Your task to perform on an android device: turn pop-ups off in chrome Image 0: 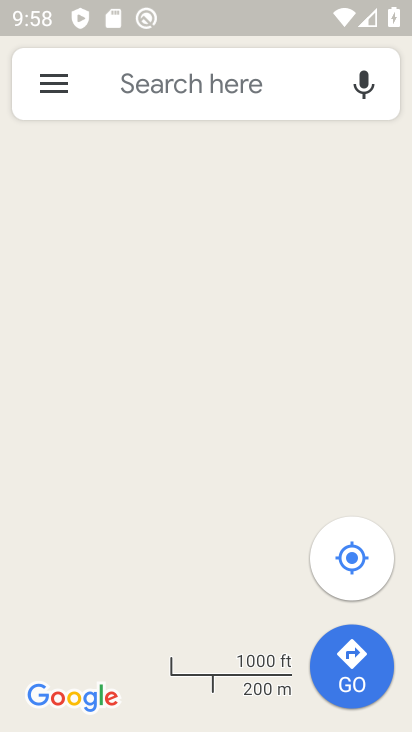
Step 0: press home button
Your task to perform on an android device: turn pop-ups off in chrome Image 1: 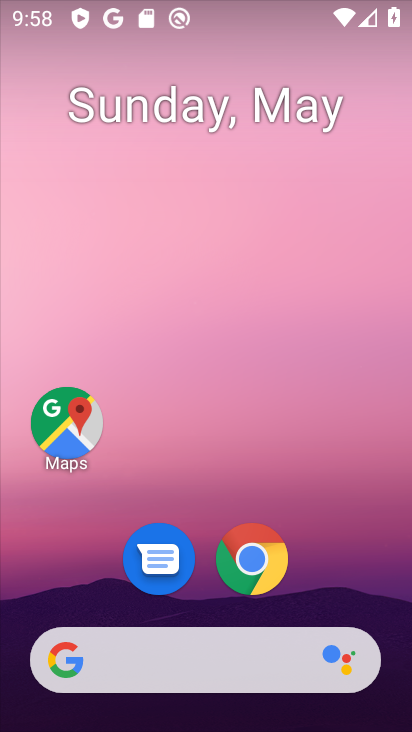
Step 1: click (270, 572)
Your task to perform on an android device: turn pop-ups off in chrome Image 2: 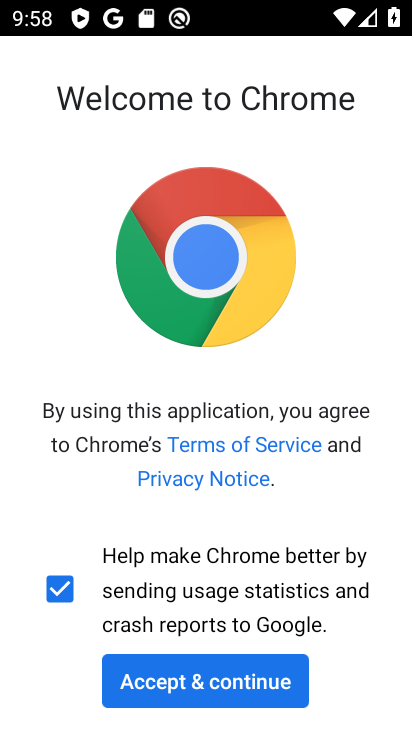
Step 2: click (182, 678)
Your task to perform on an android device: turn pop-ups off in chrome Image 3: 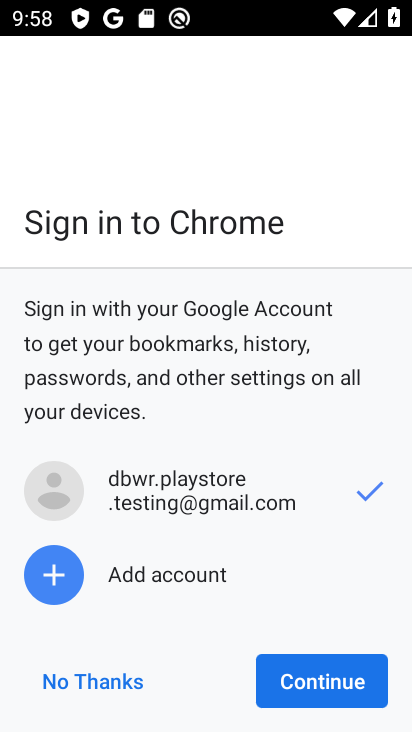
Step 3: click (338, 672)
Your task to perform on an android device: turn pop-ups off in chrome Image 4: 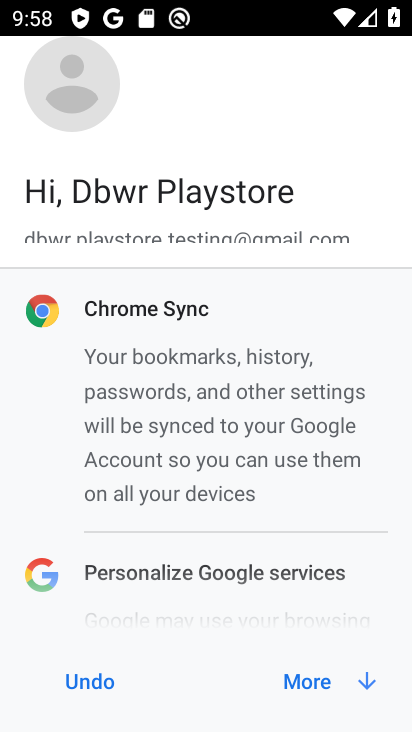
Step 4: click (363, 687)
Your task to perform on an android device: turn pop-ups off in chrome Image 5: 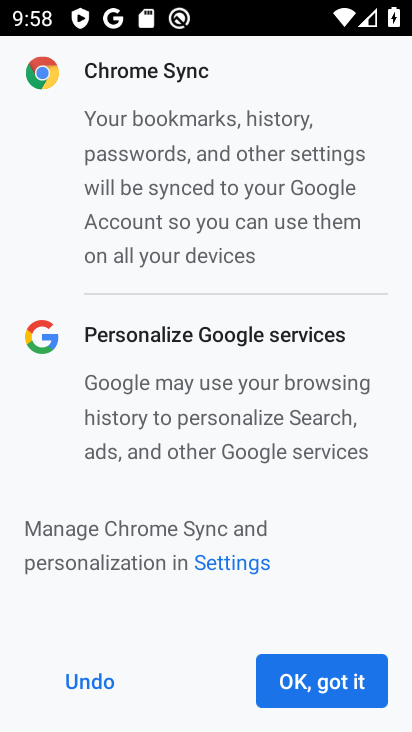
Step 5: click (356, 670)
Your task to perform on an android device: turn pop-ups off in chrome Image 6: 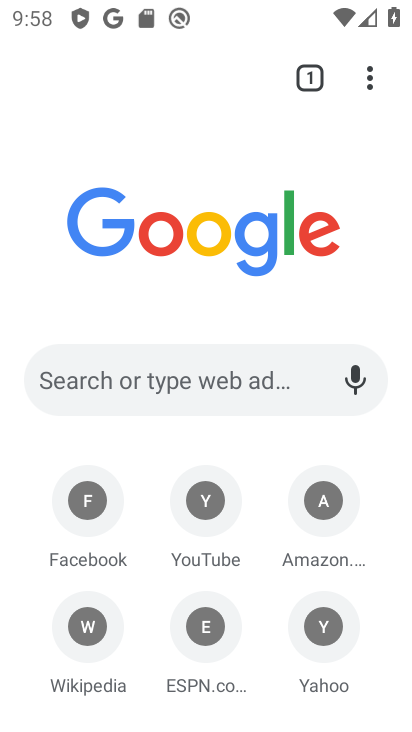
Step 6: click (367, 92)
Your task to perform on an android device: turn pop-ups off in chrome Image 7: 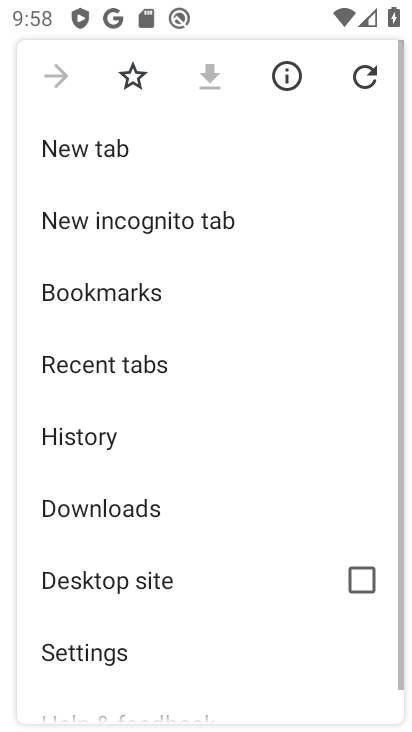
Step 7: drag from (211, 627) to (169, 167)
Your task to perform on an android device: turn pop-ups off in chrome Image 8: 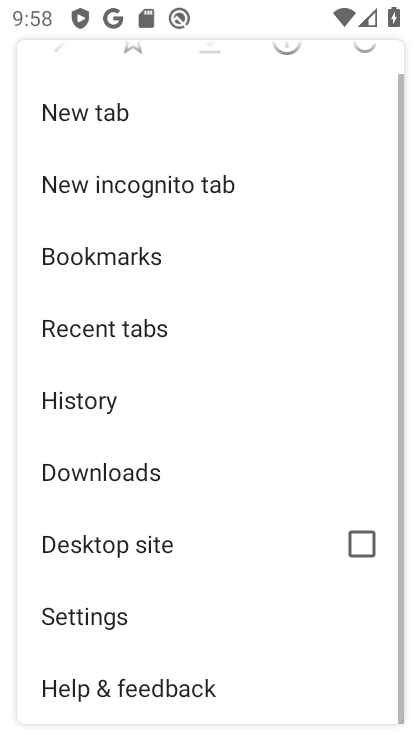
Step 8: click (83, 617)
Your task to perform on an android device: turn pop-ups off in chrome Image 9: 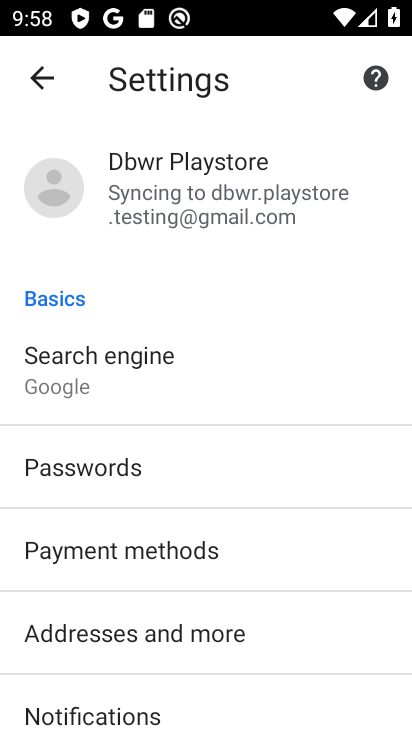
Step 9: drag from (134, 617) to (136, 62)
Your task to perform on an android device: turn pop-ups off in chrome Image 10: 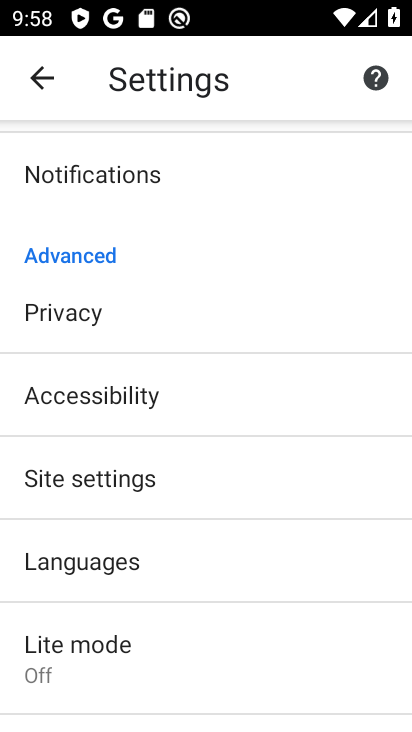
Step 10: click (121, 484)
Your task to perform on an android device: turn pop-ups off in chrome Image 11: 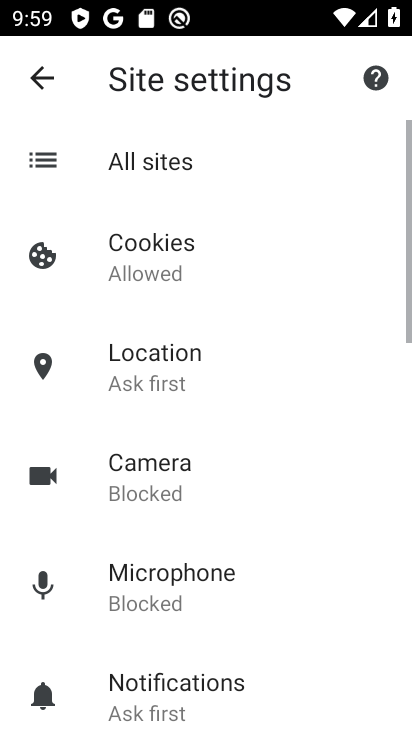
Step 11: drag from (206, 542) to (184, 154)
Your task to perform on an android device: turn pop-ups off in chrome Image 12: 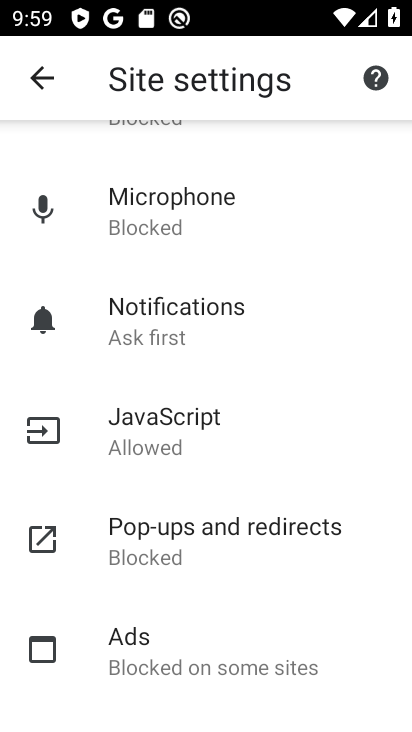
Step 12: click (180, 524)
Your task to perform on an android device: turn pop-ups off in chrome Image 13: 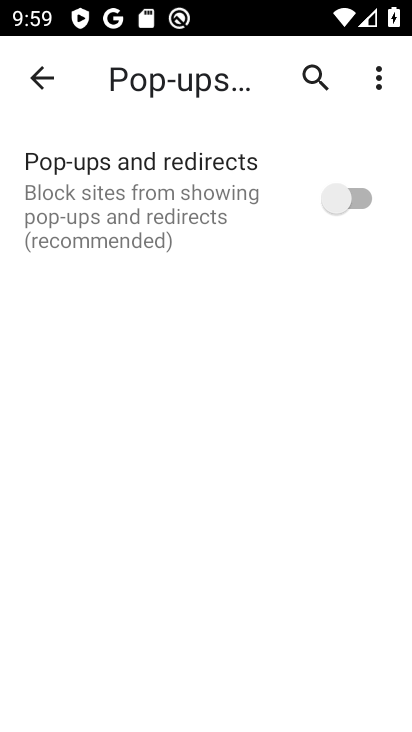
Step 13: task complete